Your task to perform on an android device: Open Google Maps and go to "Timeline" Image 0: 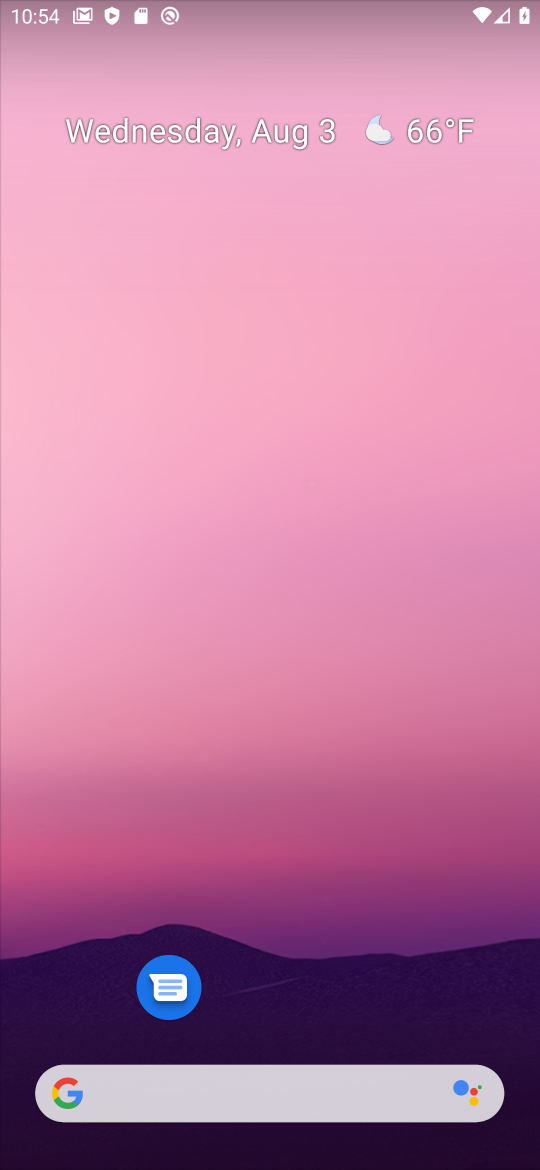
Step 0: drag from (334, 1120) to (225, 216)
Your task to perform on an android device: Open Google Maps and go to "Timeline" Image 1: 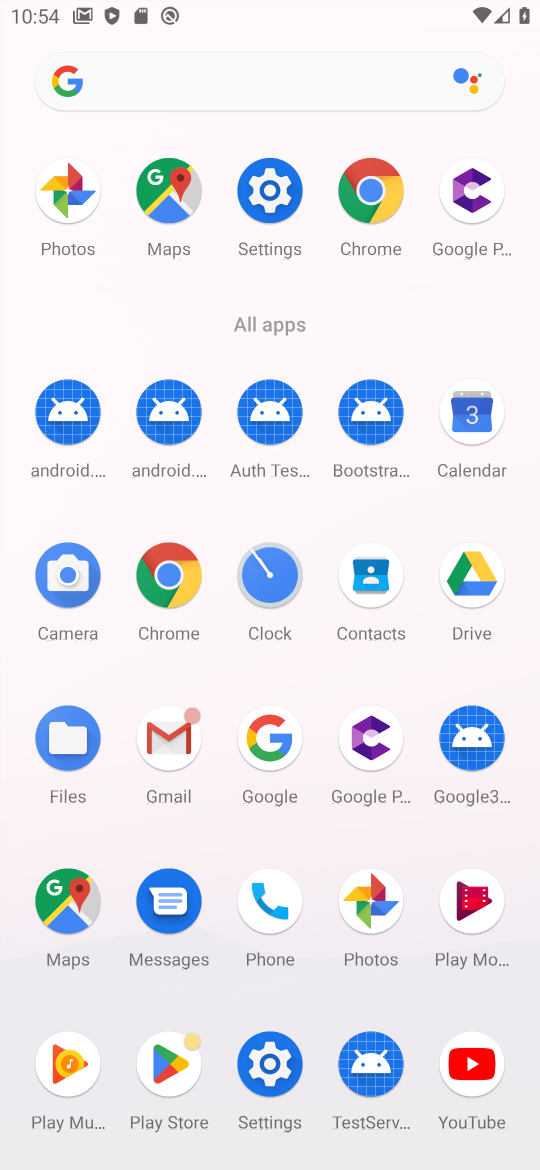
Step 1: click (157, 184)
Your task to perform on an android device: Open Google Maps and go to "Timeline" Image 2: 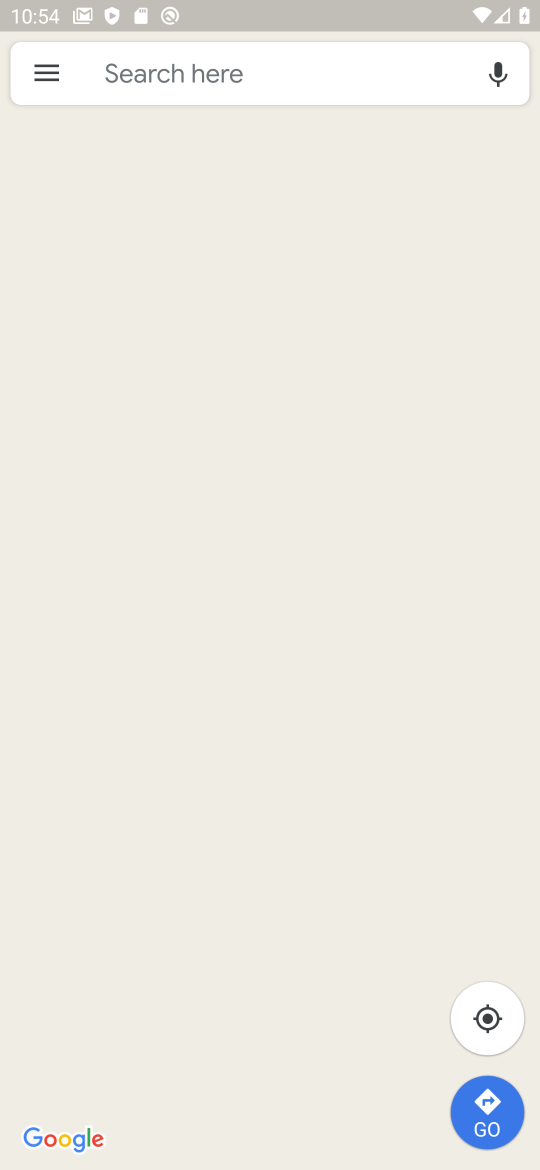
Step 2: click (267, 548)
Your task to perform on an android device: Open Google Maps and go to "Timeline" Image 3: 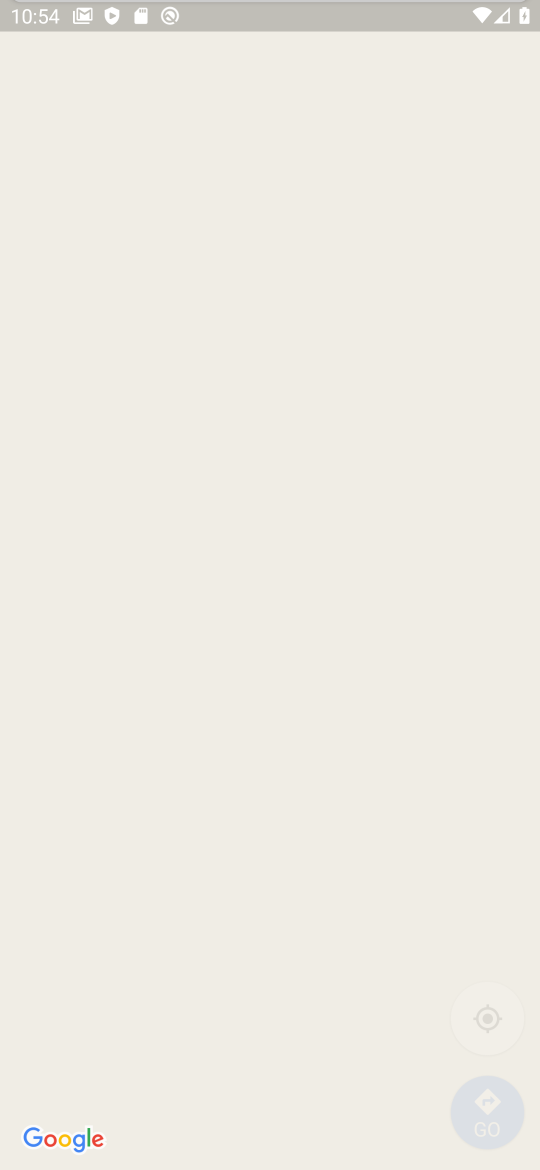
Step 3: click (136, 68)
Your task to perform on an android device: Open Google Maps and go to "Timeline" Image 4: 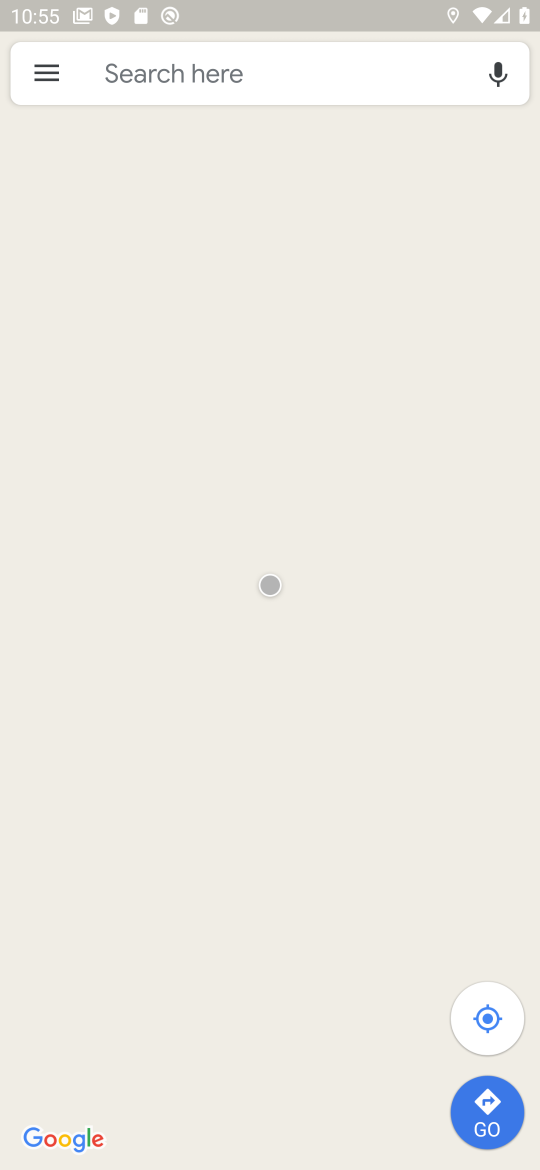
Step 4: click (141, 69)
Your task to perform on an android device: Open Google Maps and go to "Timeline" Image 5: 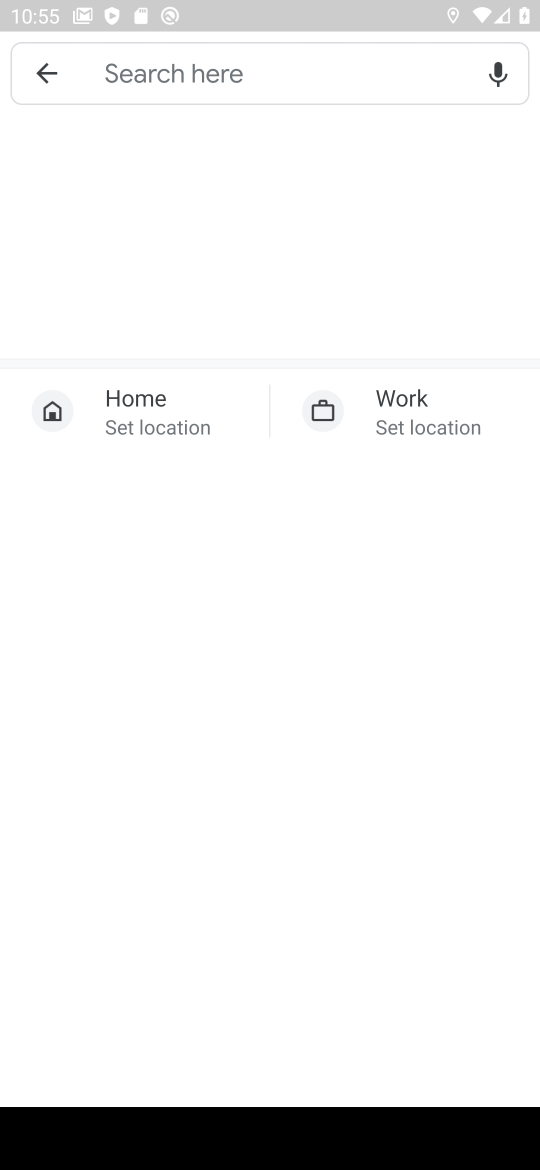
Step 5: click (135, 77)
Your task to perform on an android device: Open Google Maps and go to "Timeline" Image 6: 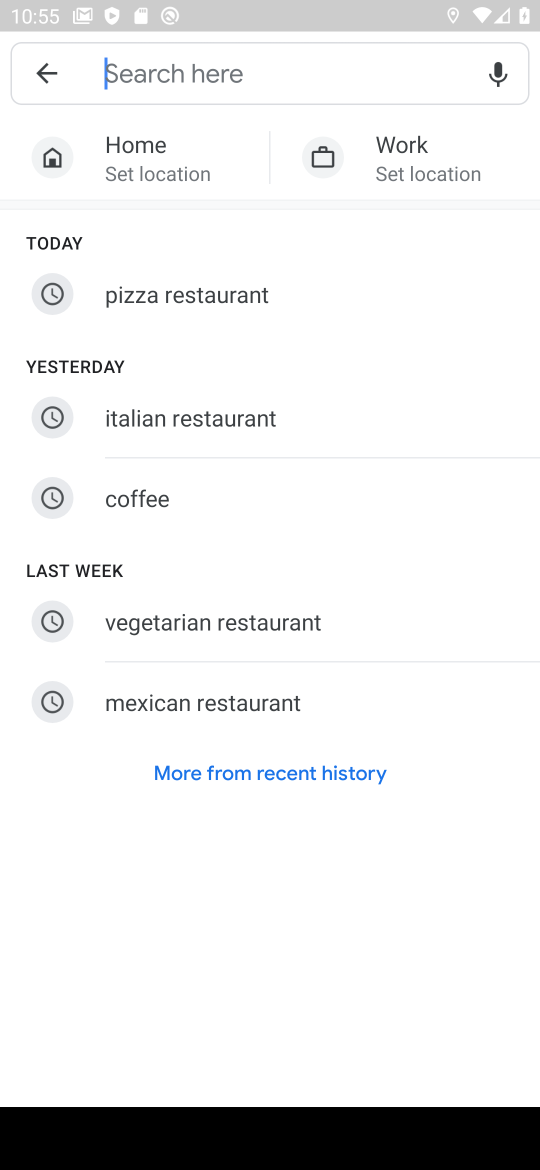
Step 6: click (135, 77)
Your task to perform on an android device: Open Google Maps and go to "Timeline" Image 7: 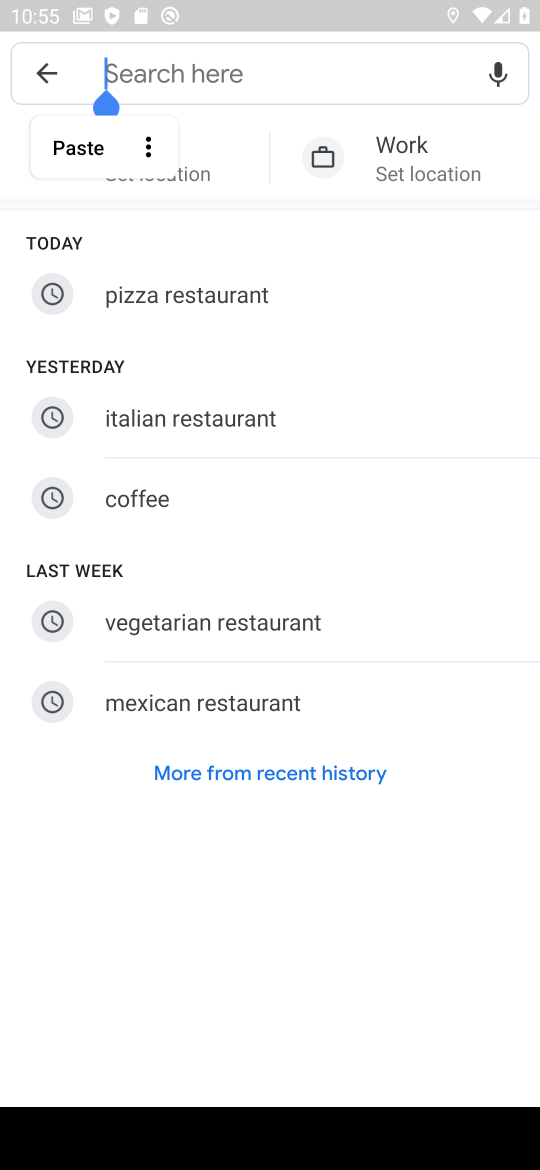
Step 7: click (40, 69)
Your task to perform on an android device: Open Google Maps and go to "Timeline" Image 8: 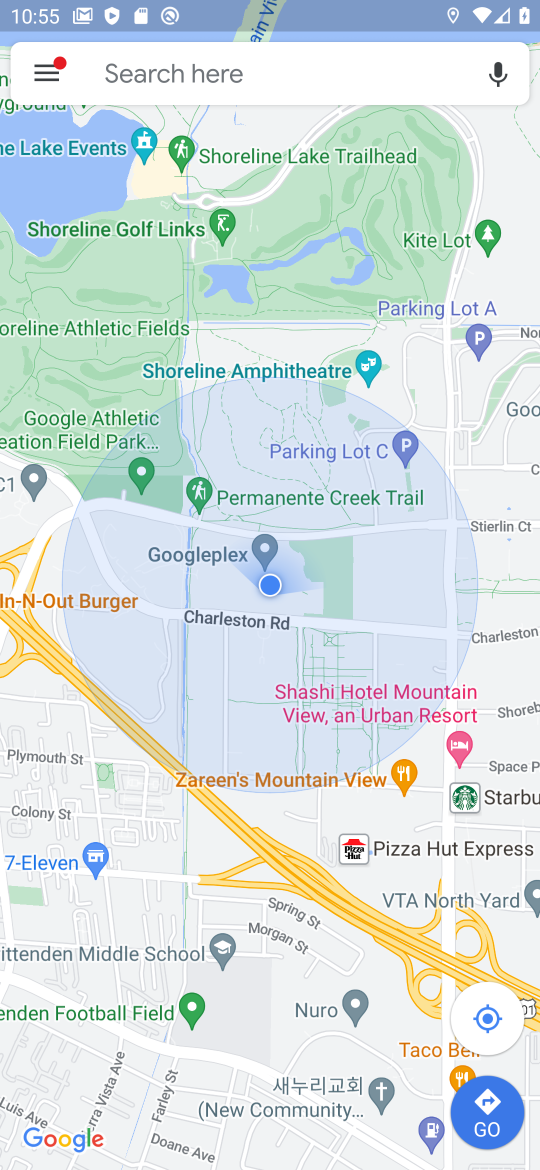
Step 8: click (133, 69)
Your task to perform on an android device: Open Google Maps and go to "Timeline" Image 9: 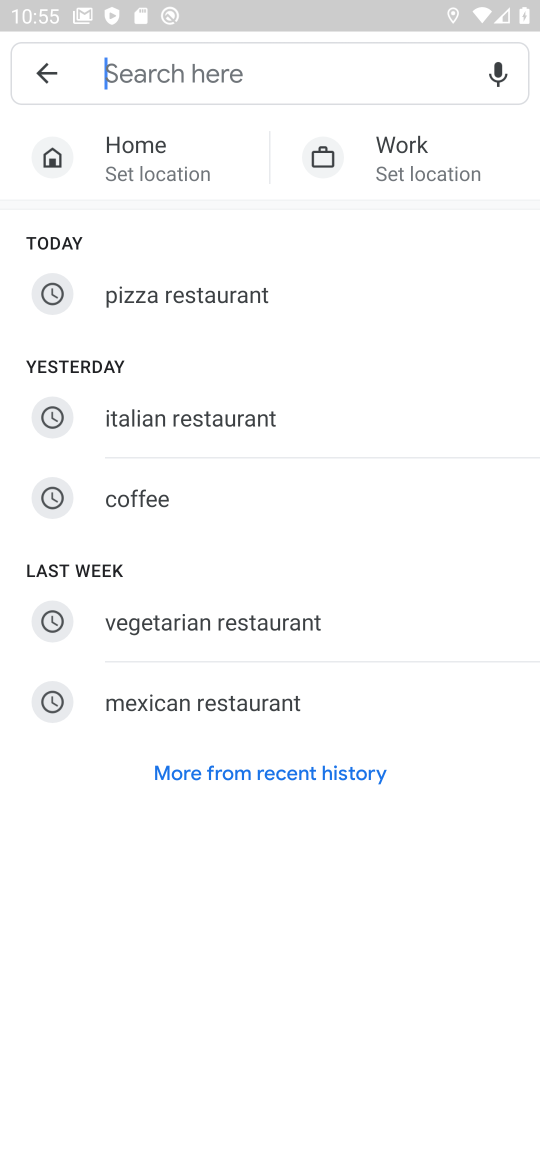
Step 9: click (57, 76)
Your task to perform on an android device: Open Google Maps and go to "Timeline" Image 10: 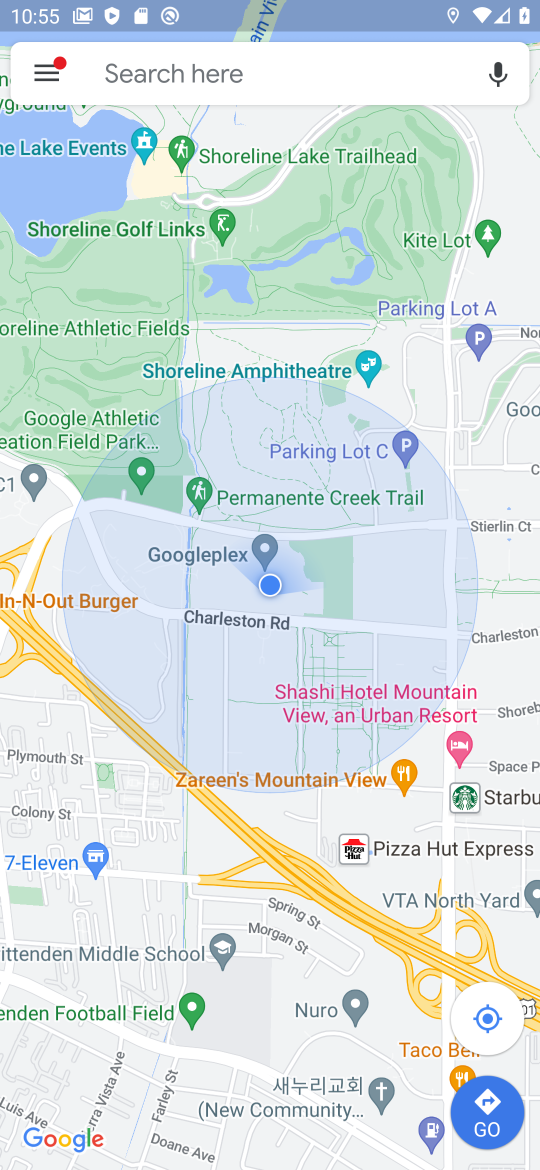
Step 10: click (53, 90)
Your task to perform on an android device: Open Google Maps and go to "Timeline" Image 11: 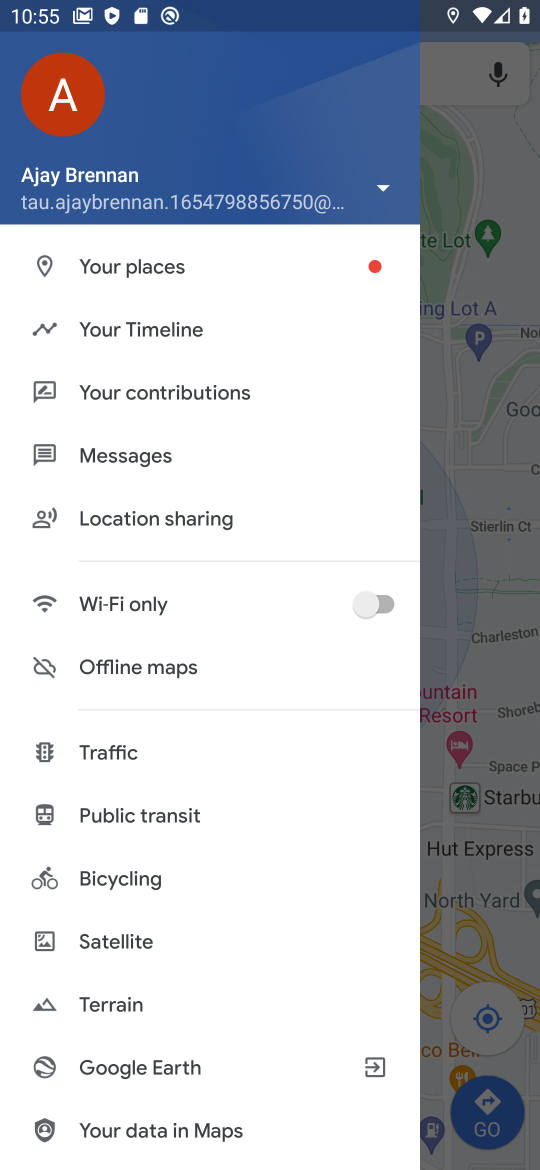
Step 11: click (171, 328)
Your task to perform on an android device: Open Google Maps and go to "Timeline" Image 12: 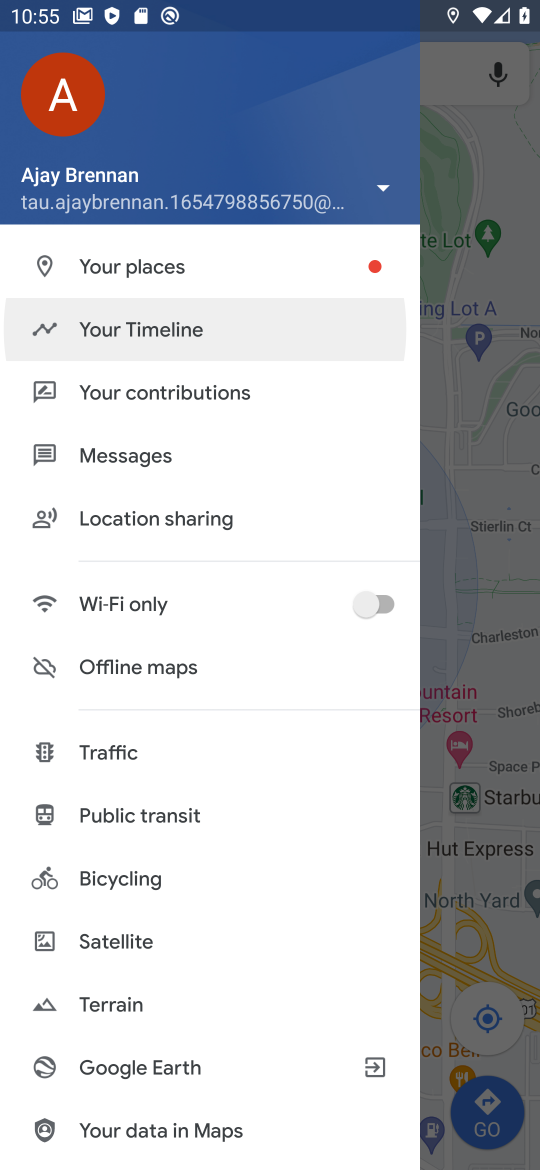
Step 12: click (171, 331)
Your task to perform on an android device: Open Google Maps and go to "Timeline" Image 13: 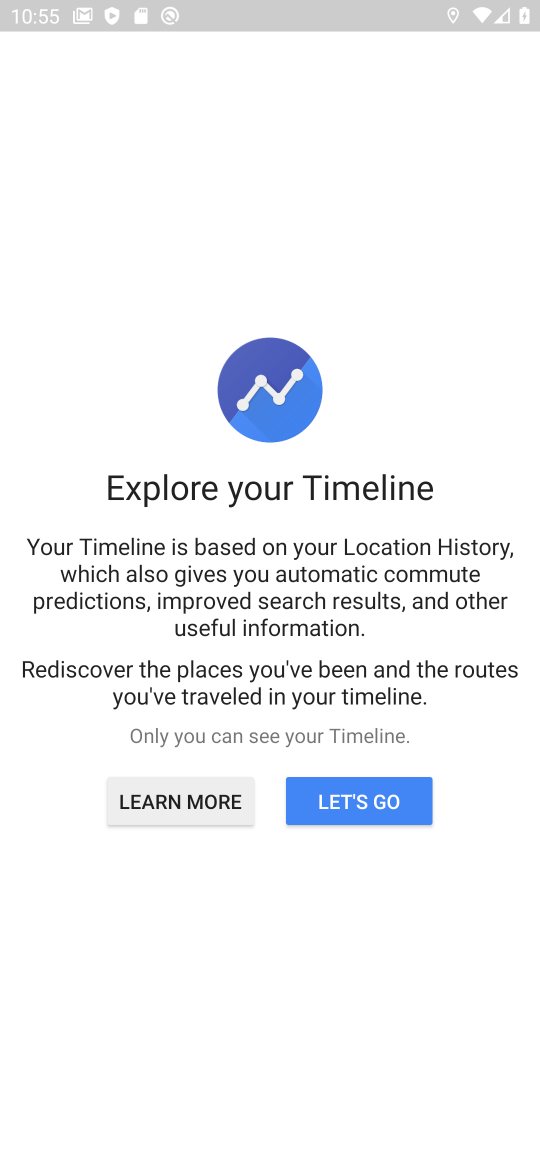
Step 13: task complete